Your task to perform on an android device: add a label to a message in the gmail app Image 0: 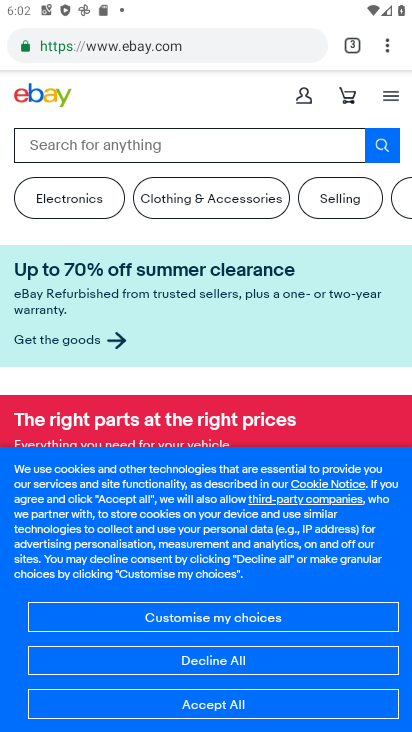
Step 0: press home button
Your task to perform on an android device: add a label to a message in the gmail app Image 1: 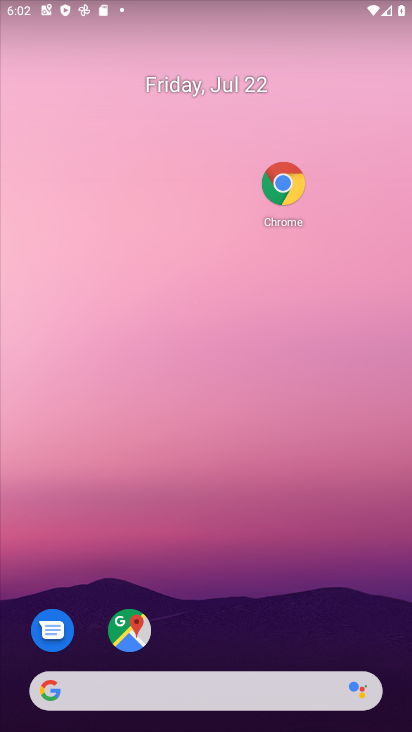
Step 1: drag from (201, 505) to (274, 57)
Your task to perform on an android device: add a label to a message in the gmail app Image 2: 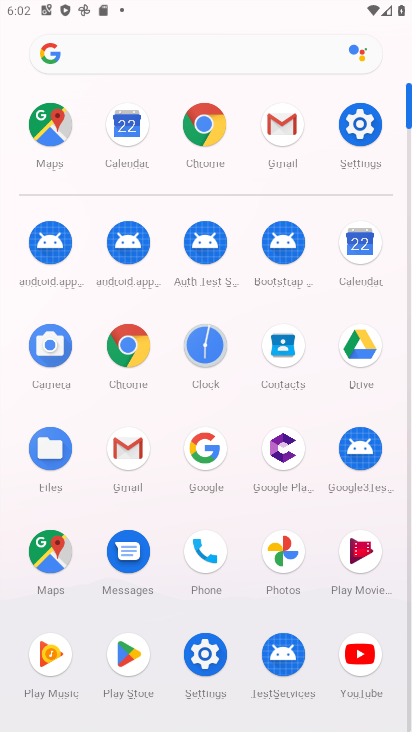
Step 2: click (295, 132)
Your task to perform on an android device: add a label to a message in the gmail app Image 3: 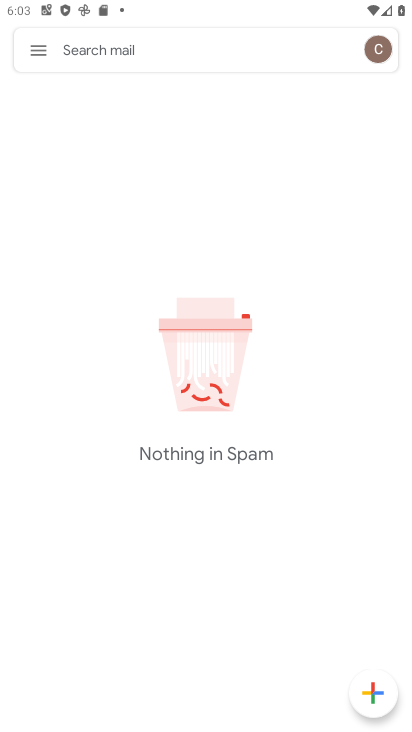
Step 3: click (40, 58)
Your task to perform on an android device: add a label to a message in the gmail app Image 4: 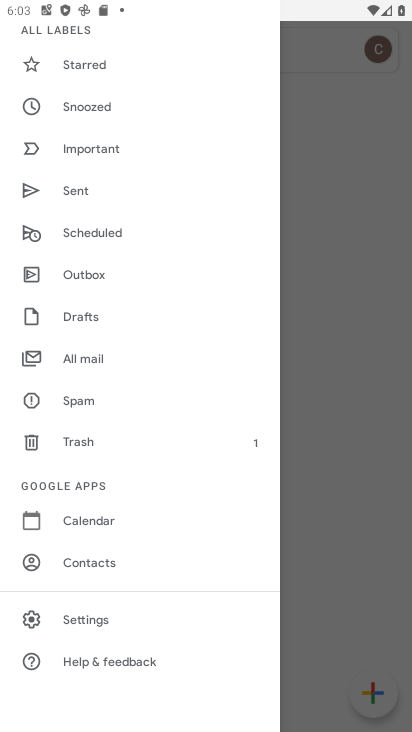
Step 4: click (82, 358)
Your task to perform on an android device: add a label to a message in the gmail app Image 5: 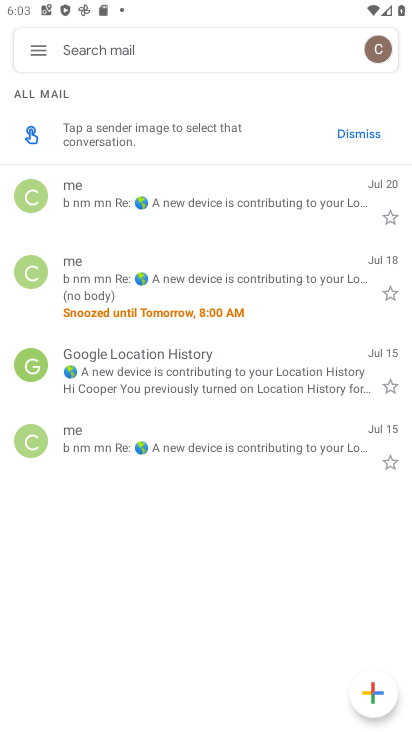
Step 5: click (270, 274)
Your task to perform on an android device: add a label to a message in the gmail app Image 6: 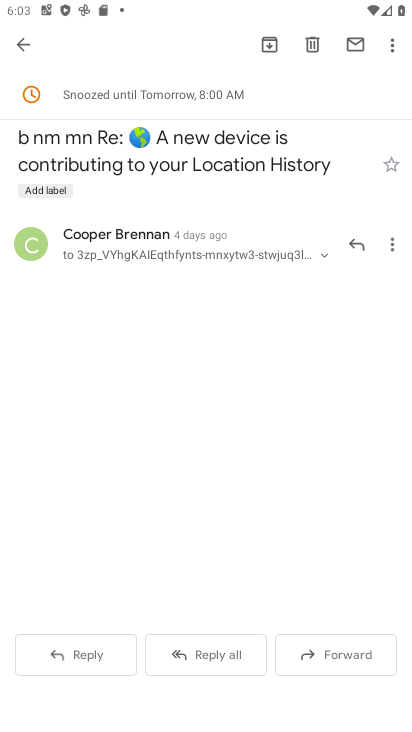
Step 6: click (55, 191)
Your task to perform on an android device: add a label to a message in the gmail app Image 7: 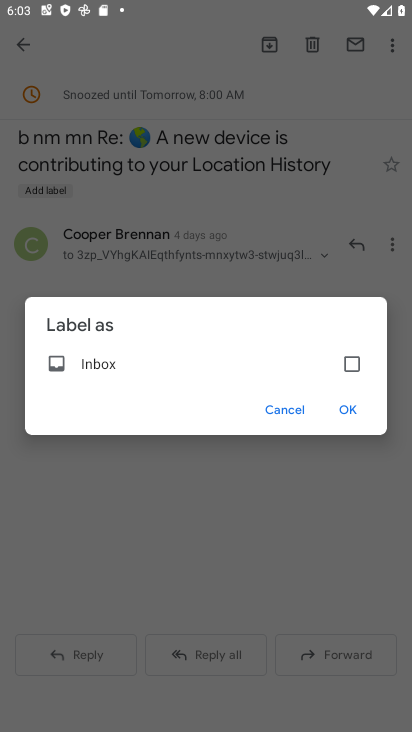
Step 7: click (349, 373)
Your task to perform on an android device: add a label to a message in the gmail app Image 8: 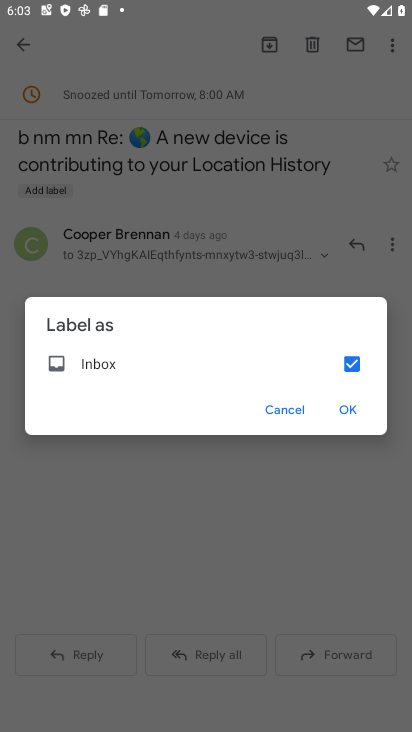
Step 8: click (349, 407)
Your task to perform on an android device: add a label to a message in the gmail app Image 9: 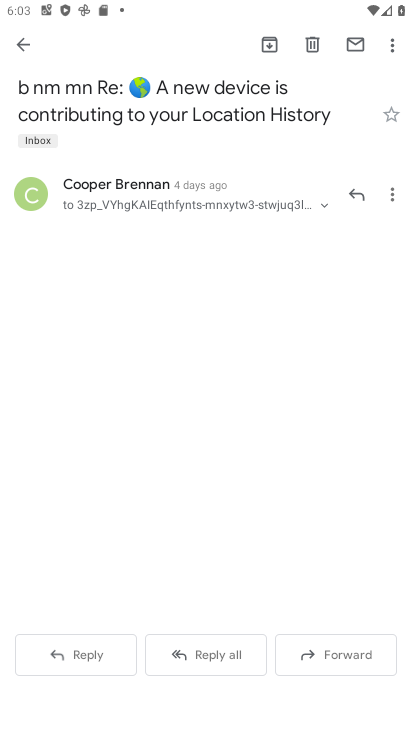
Step 9: task complete